Your task to perform on an android device: set an alarm Image 0: 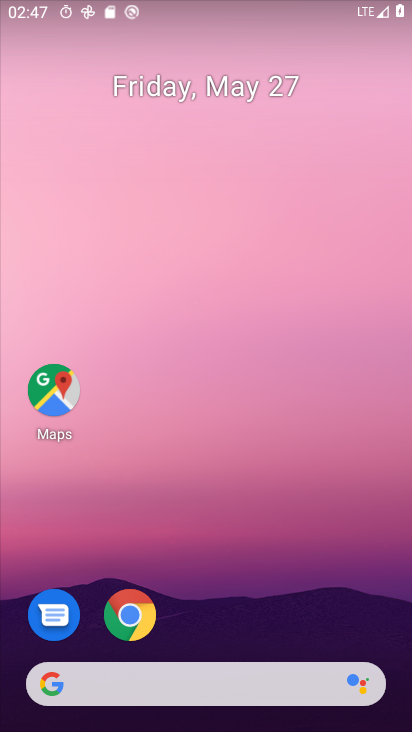
Step 0: drag from (319, 638) to (308, 208)
Your task to perform on an android device: set an alarm Image 1: 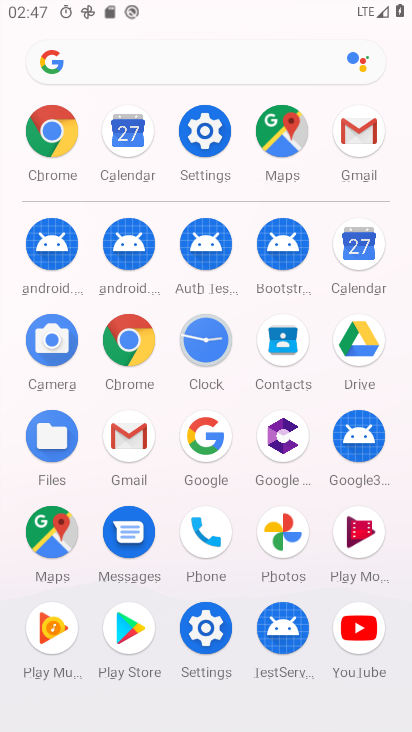
Step 1: click (215, 357)
Your task to perform on an android device: set an alarm Image 2: 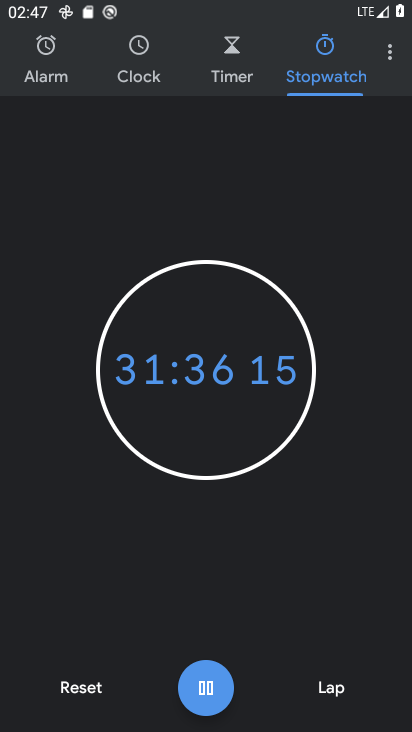
Step 2: click (38, 59)
Your task to perform on an android device: set an alarm Image 3: 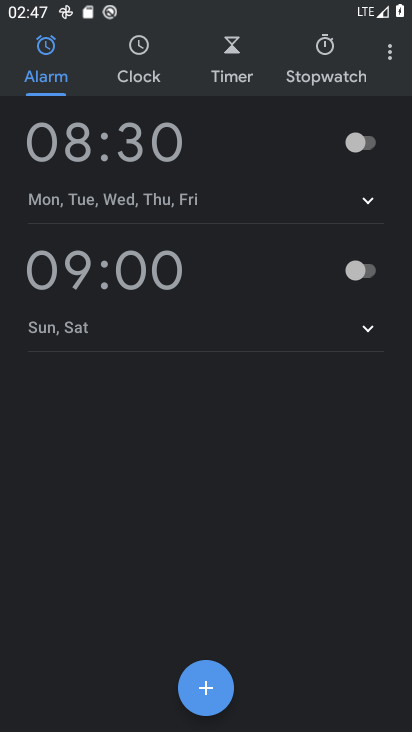
Step 3: click (208, 690)
Your task to perform on an android device: set an alarm Image 4: 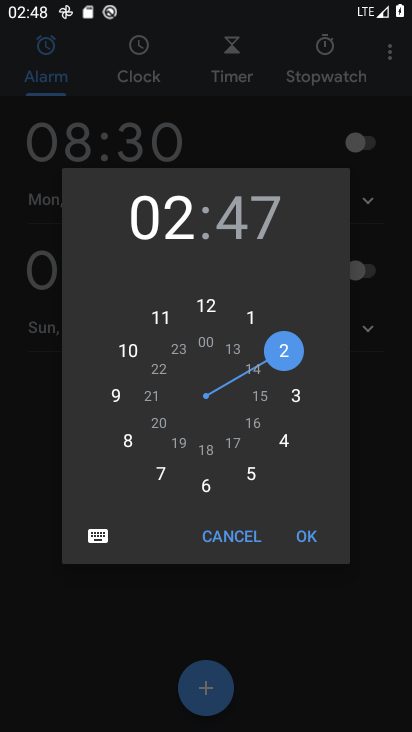
Step 4: click (284, 443)
Your task to perform on an android device: set an alarm Image 5: 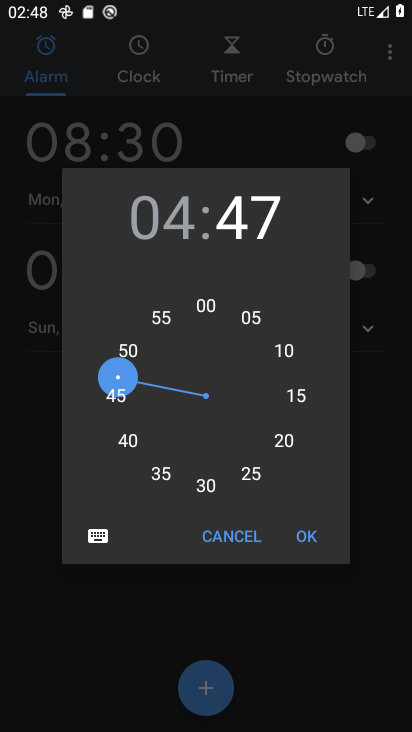
Step 5: click (307, 541)
Your task to perform on an android device: set an alarm Image 6: 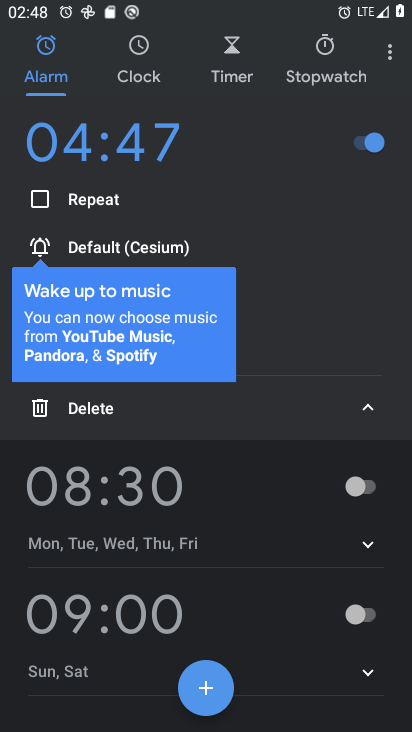
Step 6: task complete